Your task to perform on an android device: open sync settings in chrome Image 0: 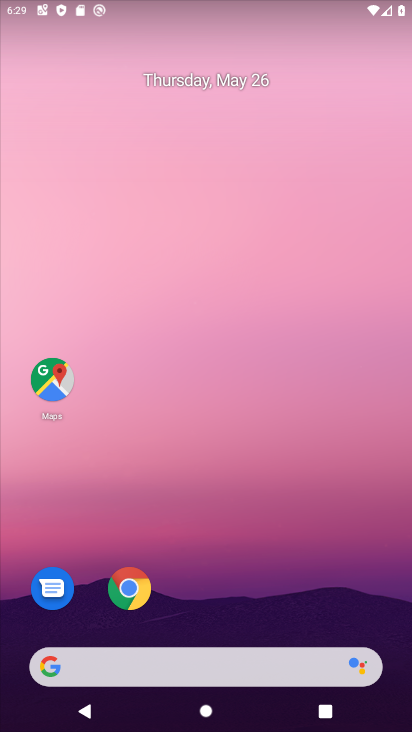
Step 0: drag from (343, 612) to (291, 13)
Your task to perform on an android device: open sync settings in chrome Image 1: 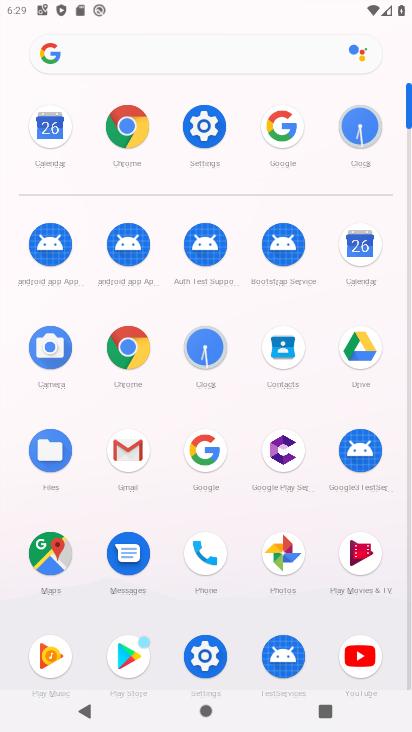
Step 1: click (111, 121)
Your task to perform on an android device: open sync settings in chrome Image 2: 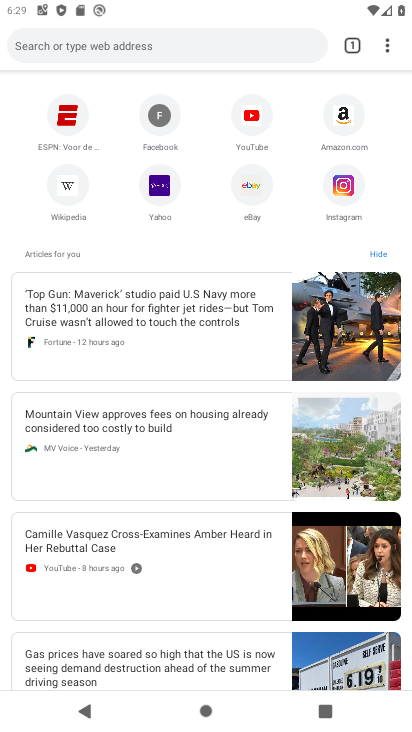
Step 2: click (398, 30)
Your task to perform on an android device: open sync settings in chrome Image 3: 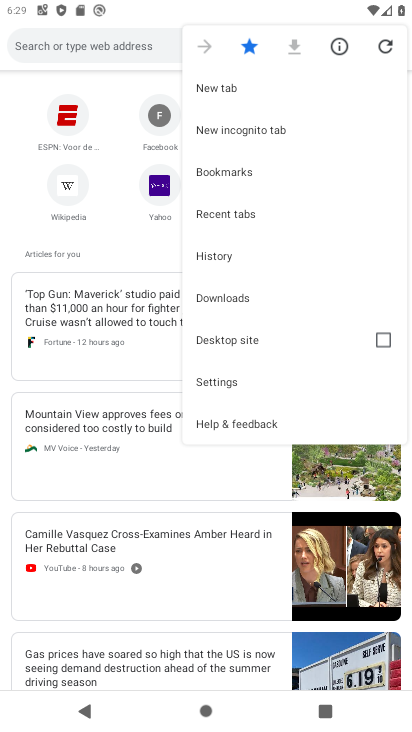
Step 3: click (263, 383)
Your task to perform on an android device: open sync settings in chrome Image 4: 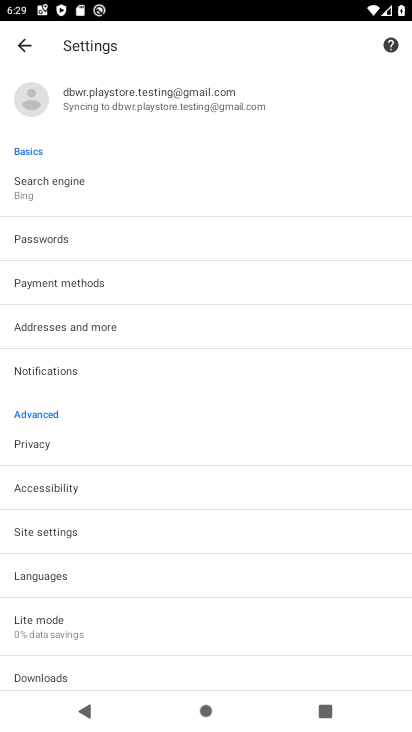
Step 4: click (72, 533)
Your task to perform on an android device: open sync settings in chrome Image 5: 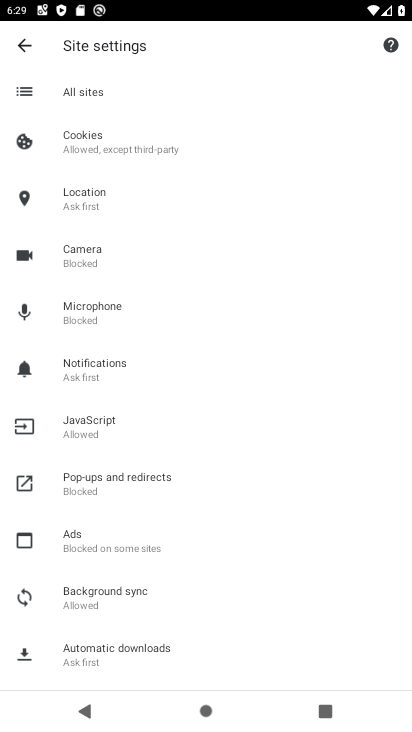
Step 5: click (117, 601)
Your task to perform on an android device: open sync settings in chrome Image 6: 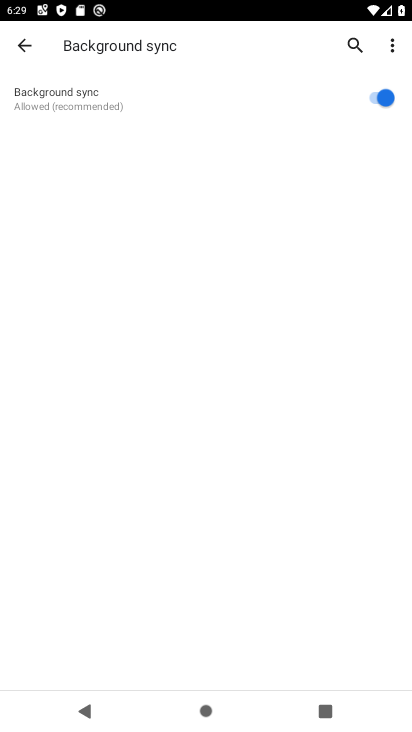
Step 6: task complete